Your task to perform on an android device: remove spam from my inbox in the gmail app Image 0: 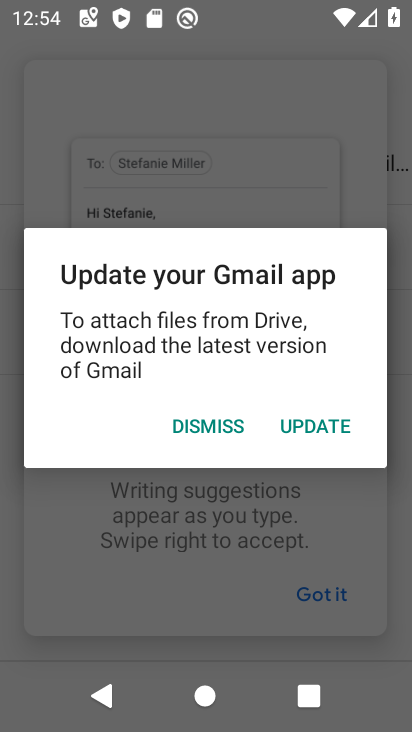
Step 0: press home button
Your task to perform on an android device: remove spam from my inbox in the gmail app Image 1: 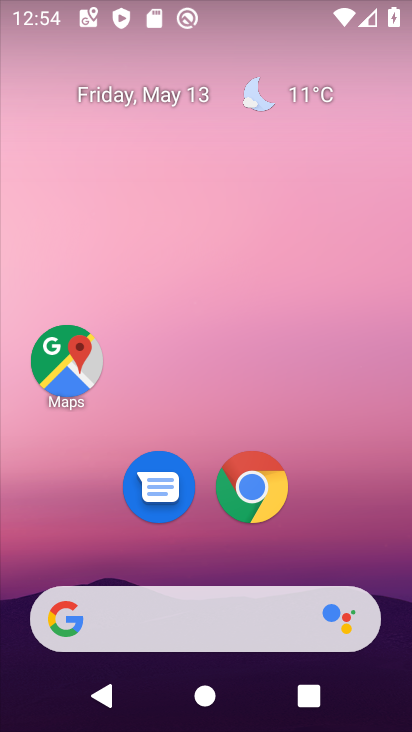
Step 1: drag from (315, 530) to (340, 121)
Your task to perform on an android device: remove spam from my inbox in the gmail app Image 2: 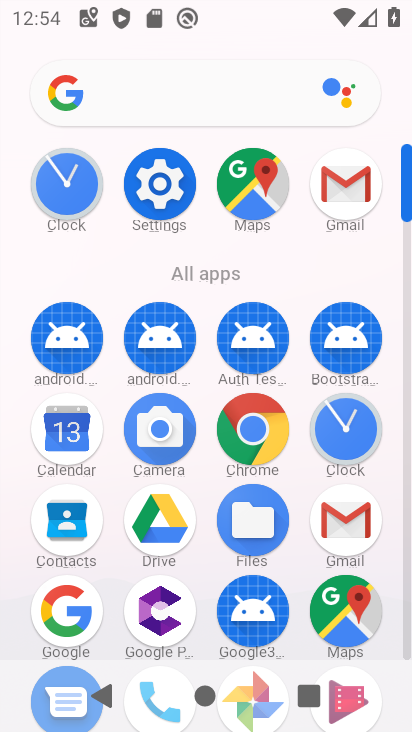
Step 2: click (333, 206)
Your task to perform on an android device: remove spam from my inbox in the gmail app Image 3: 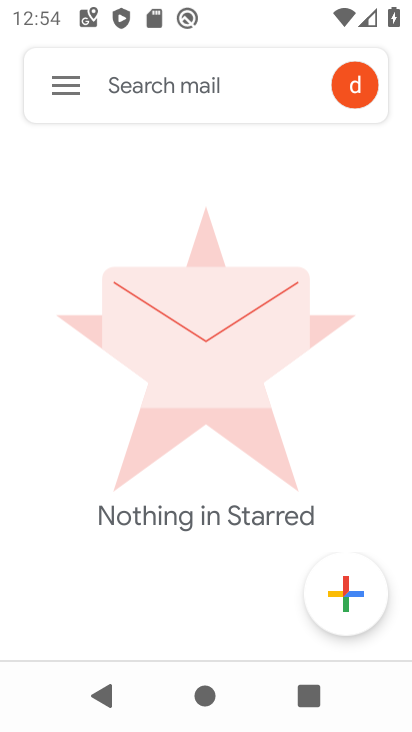
Step 3: click (80, 103)
Your task to perform on an android device: remove spam from my inbox in the gmail app Image 4: 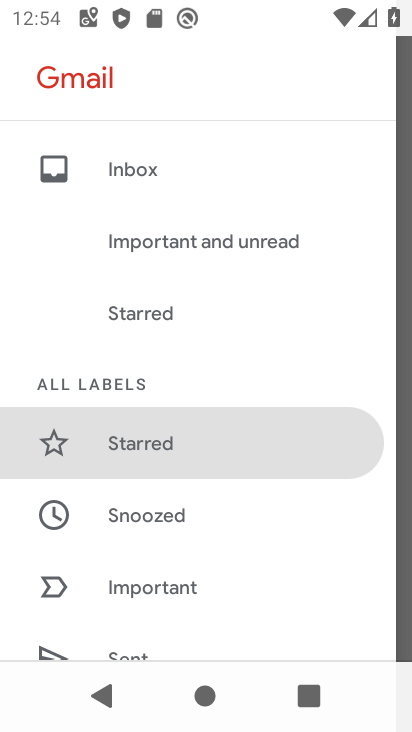
Step 4: drag from (170, 606) to (178, 227)
Your task to perform on an android device: remove spam from my inbox in the gmail app Image 5: 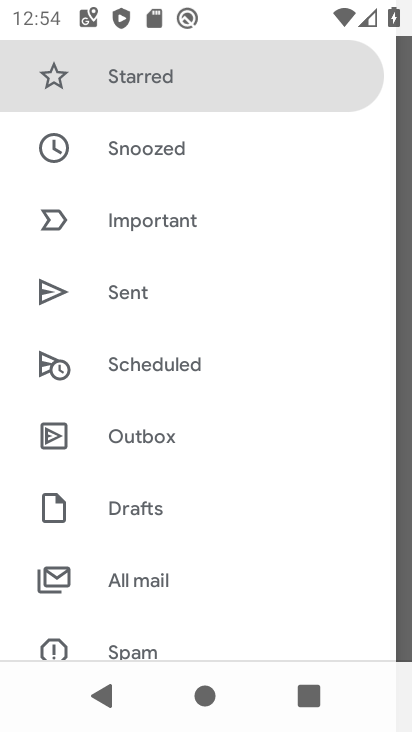
Step 5: click (153, 654)
Your task to perform on an android device: remove spam from my inbox in the gmail app Image 6: 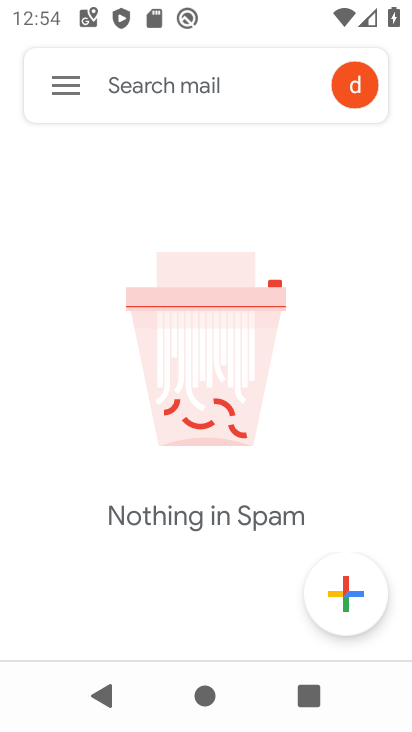
Step 6: task complete